Your task to perform on an android device: Open internet settings Image 0: 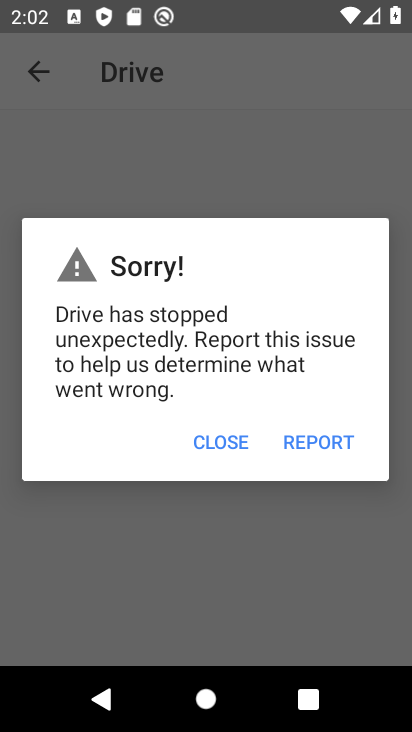
Step 0: press home button
Your task to perform on an android device: Open internet settings Image 1: 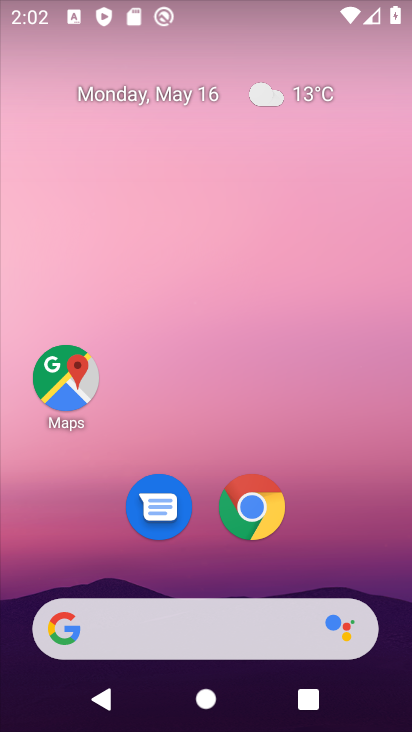
Step 1: drag from (249, 577) to (212, 164)
Your task to perform on an android device: Open internet settings Image 2: 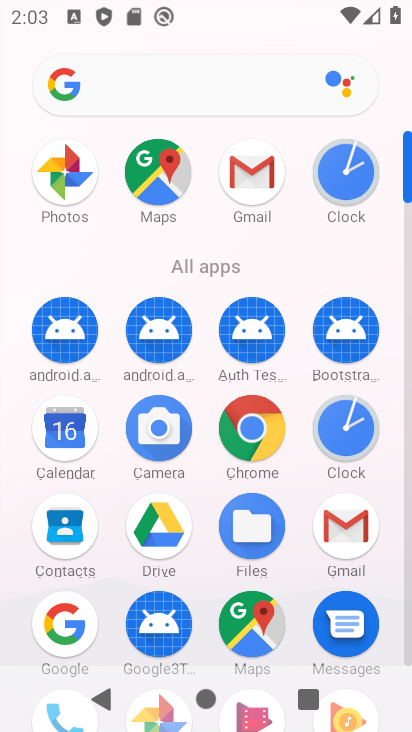
Step 2: drag from (294, 132) to (320, 15)
Your task to perform on an android device: Open internet settings Image 3: 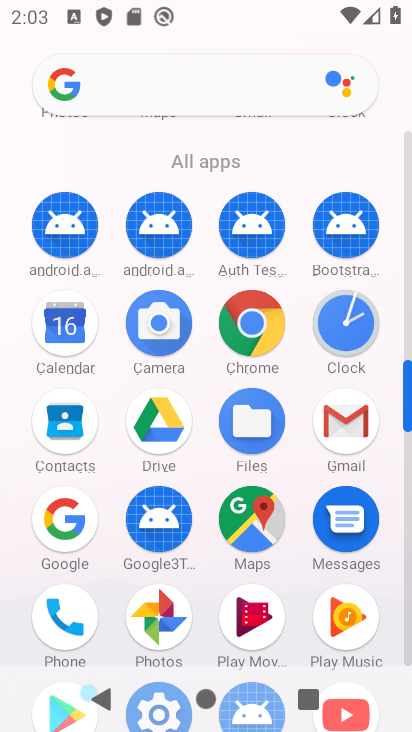
Step 3: drag from (202, 152) to (199, 2)
Your task to perform on an android device: Open internet settings Image 4: 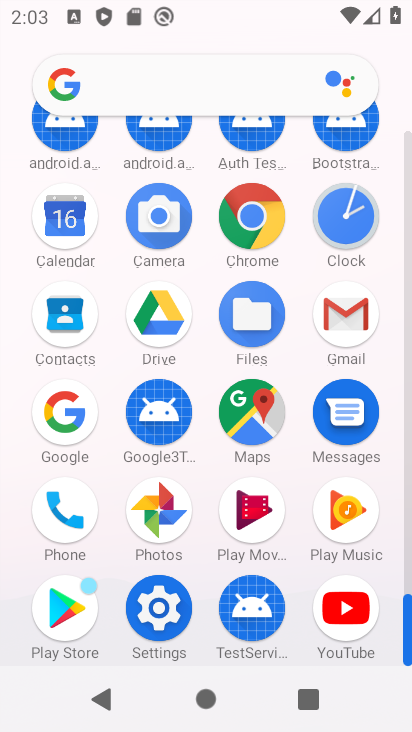
Step 4: click (135, 617)
Your task to perform on an android device: Open internet settings Image 5: 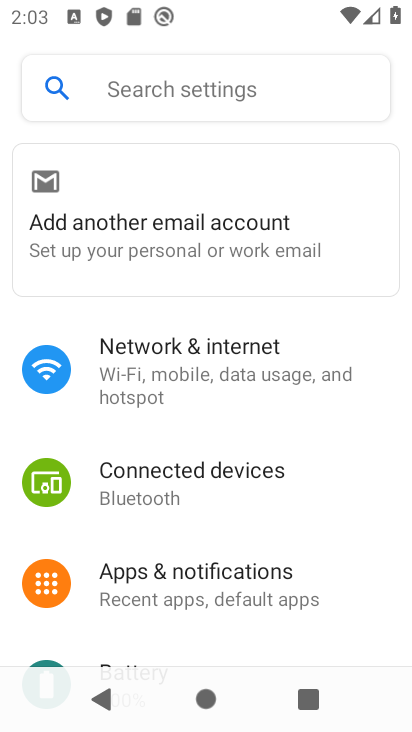
Step 5: click (196, 387)
Your task to perform on an android device: Open internet settings Image 6: 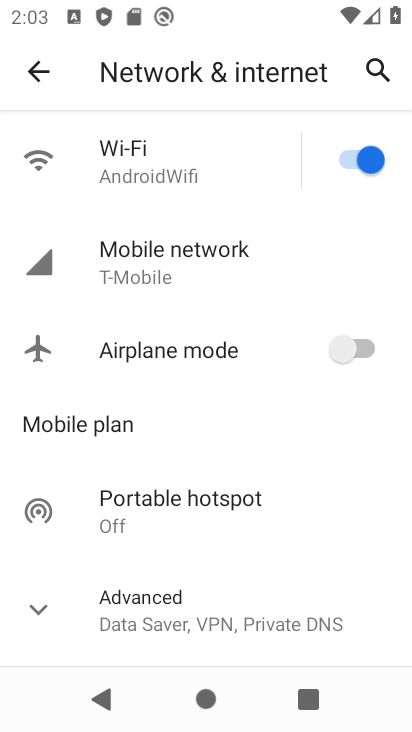
Step 6: click (180, 266)
Your task to perform on an android device: Open internet settings Image 7: 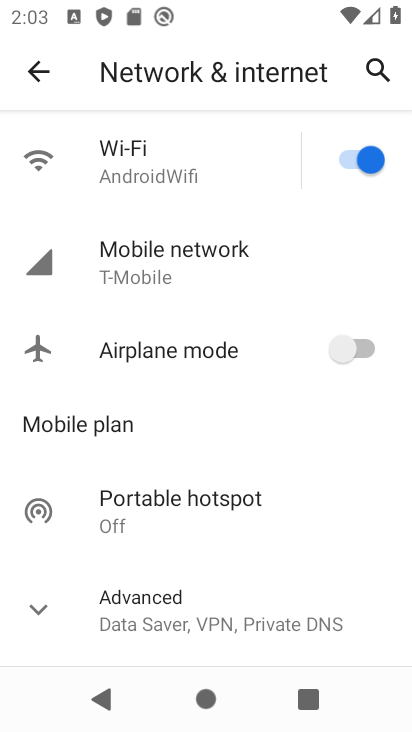
Step 7: task complete